Your task to perform on an android device: Open the settings Image 0: 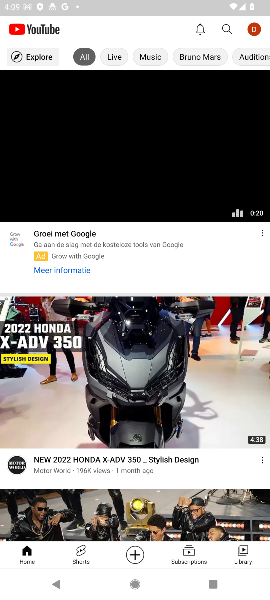
Step 0: press home button
Your task to perform on an android device: Open the settings Image 1: 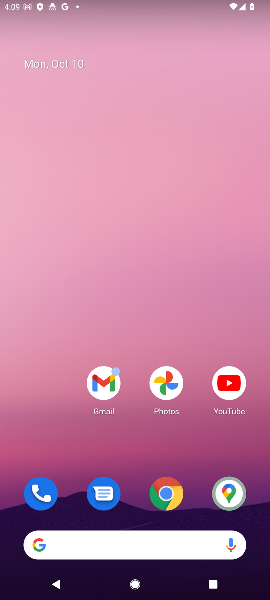
Step 1: drag from (137, 525) to (120, 100)
Your task to perform on an android device: Open the settings Image 2: 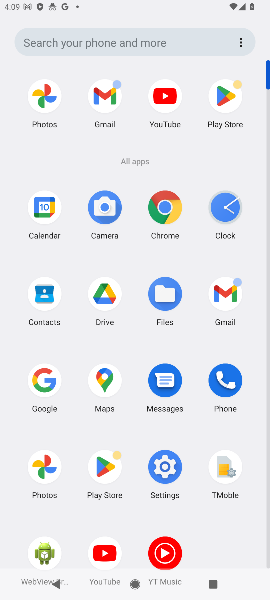
Step 2: click (165, 461)
Your task to perform on an android device: Open the settings Image 3: 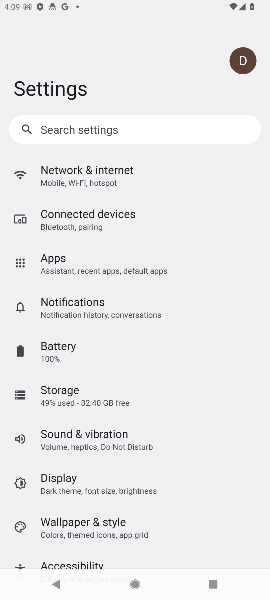
Step 3: task complete